Your task to perform on an android device: Open wifi settings Image 0: 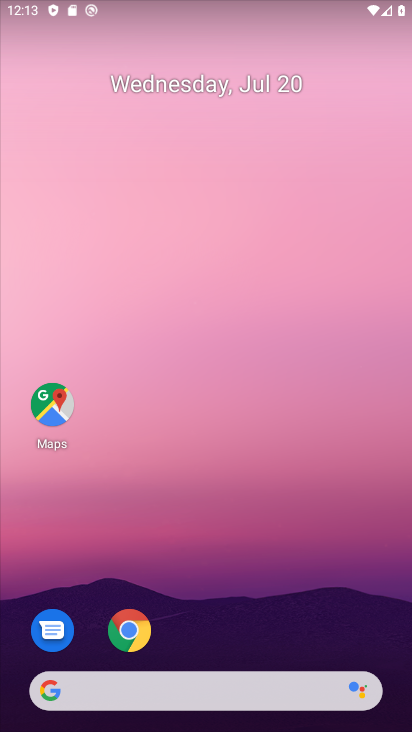
Step 0: drag from (257, 599) to (242, 75)
Your task to perform on an android device: Open wifi settings Image 1: 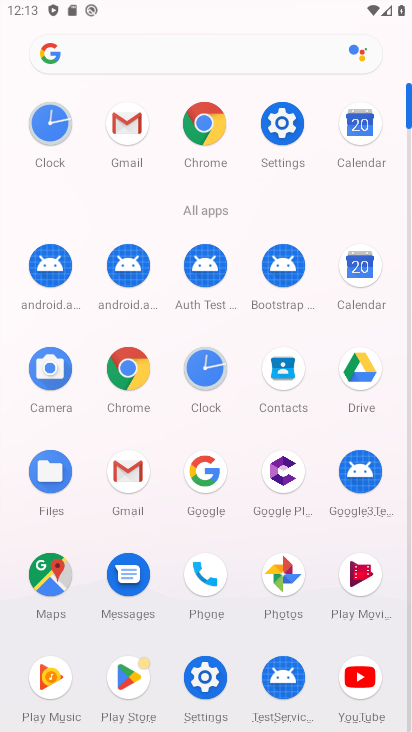
Step 1: click (290, 123)
Your task to perform on an android device: Open wifi settings Image 2: 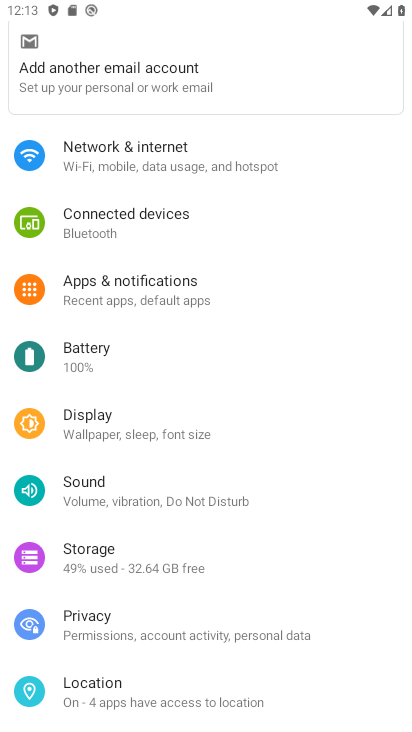
Step 2: click (116, 149)
Your task to perform on an android device: Open wifi settings Image 3: 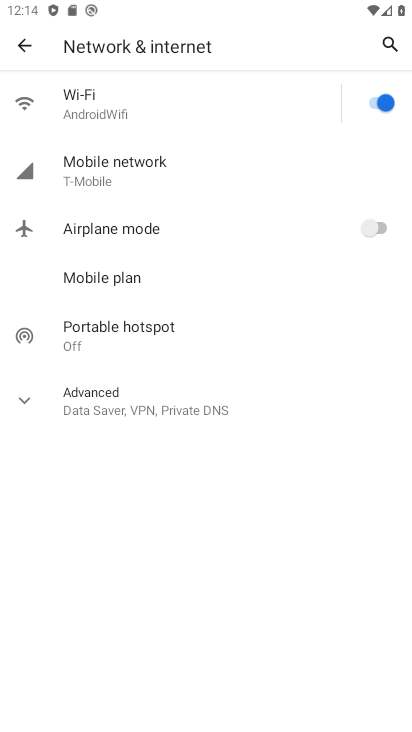
Step 3: click (89, 94)
Your task to perform on an android device: Open wifi settings Image 4: 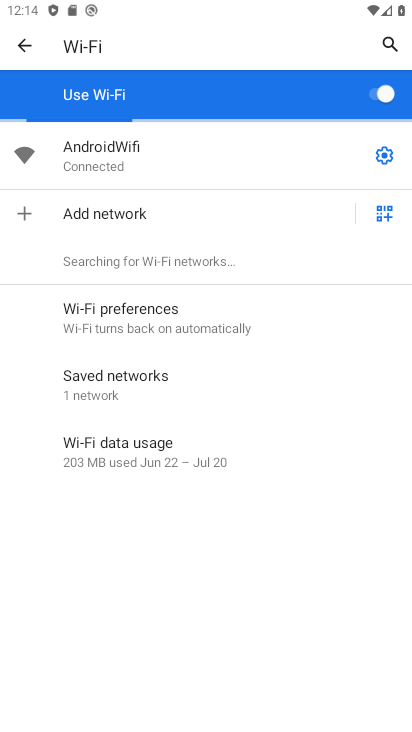
Step 4: task complete